Your task to perform on an android device: turn on bluetooth scan Image 0: 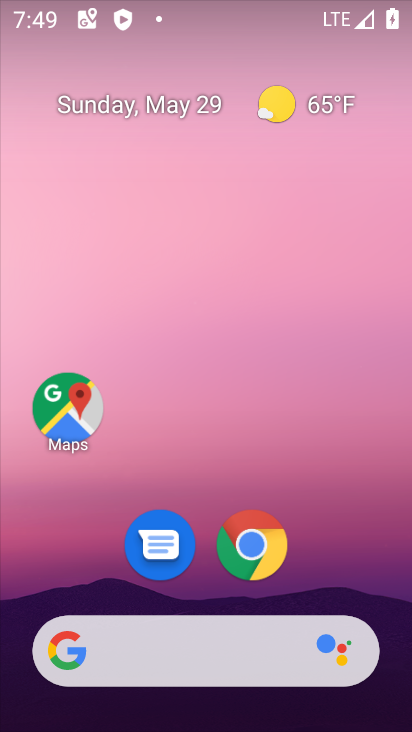
Step 0: drag from (208, 585) to (233, 228)
Your task to perform on an android device: turn on bluetooth scan Image 1: 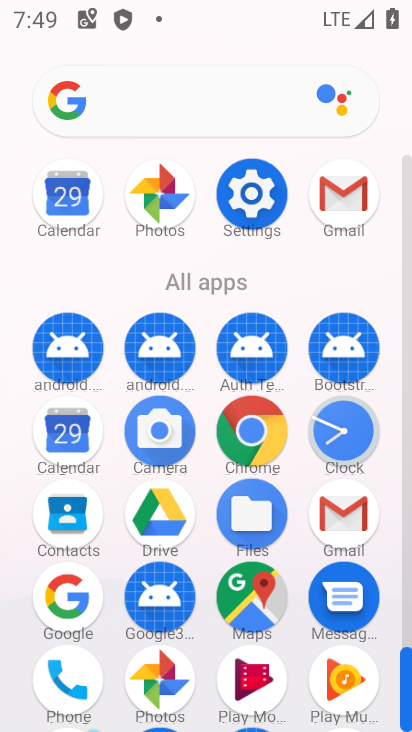
Step 1: click (252, 194)
Your task to perform on an android device: turn on bluetooth scan Image 2: 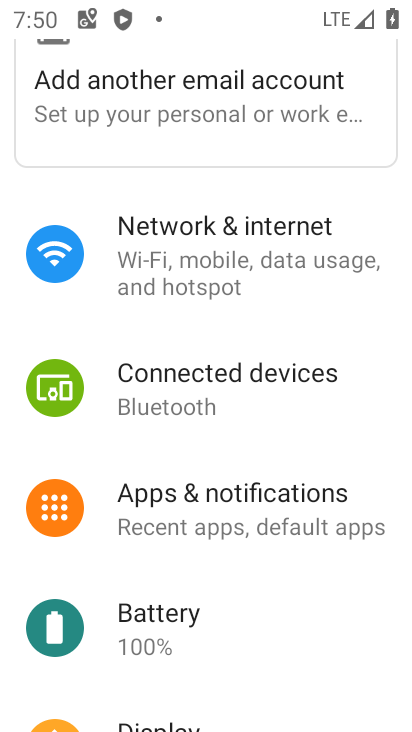
Step 2: drag from (185, 600) to (234, 214)
Your task to perform on an android device: turn on bluetooth scan Image 3: 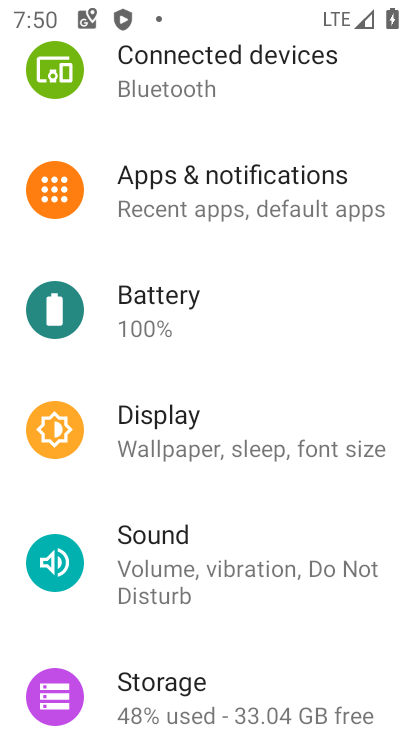
Step 3: drag from (249, 644) to (281, 276)
Your task to perform on an android device: turn on bluetooth scan Image 4: 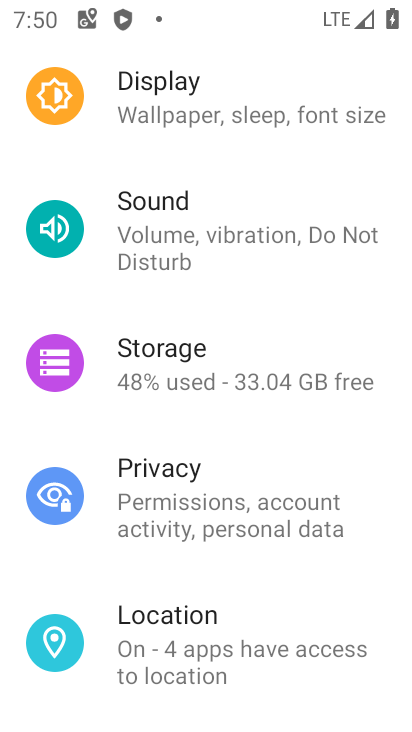
Step 4: drag from (269, 703) to (287, 335)
Your task to perform on an android device: turn on bluetooth scan Image 5: 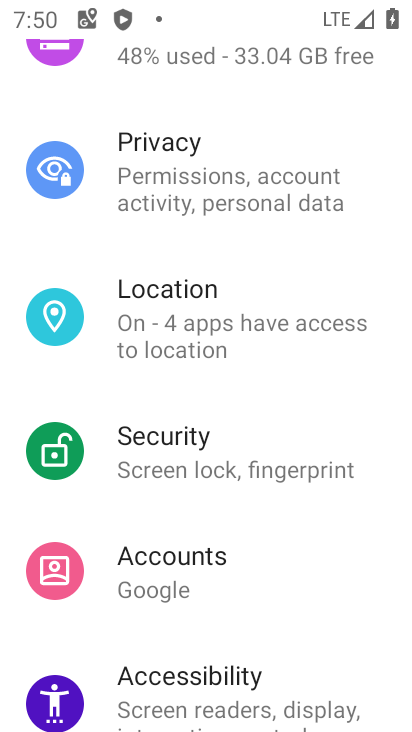
Step 5: drag from (251, 618) to (266, 238)
Your task to perform on an android device: turn on bluetooth scan Image 6: 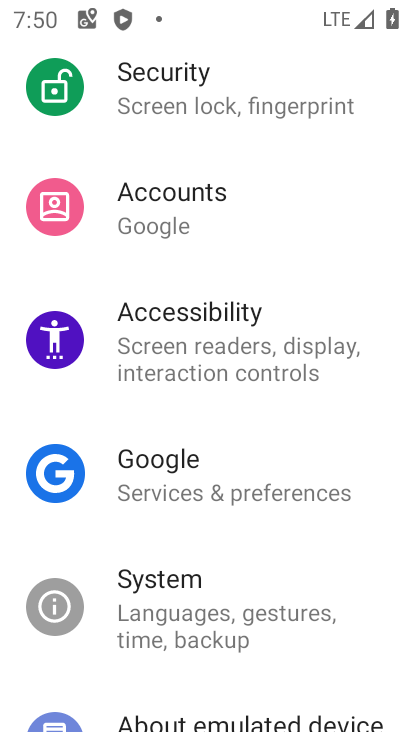
Step 6: drag from (302, 699) to (301, 352)
Your task to perform on an android device: turn on bluetooth scan Image 7: 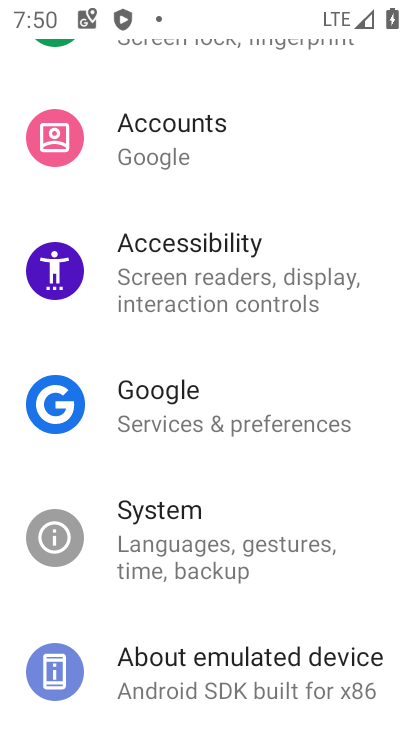
Step 7: drag from (285, 244) to (291, 517)
Your task to perform on an android device: turn on bluetooth scan Image 8: 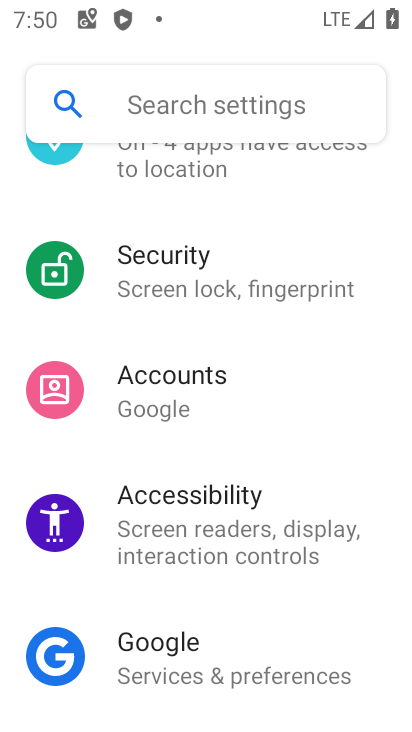
Step 8: drag from (226, 221) to (279, 633)
Your task to perform on an android device: turn on bluetooth scan Image 9: 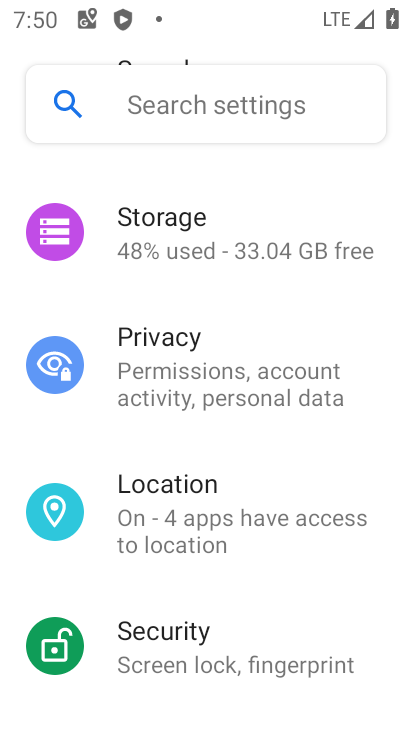
Step 9: click (212, 514)
Your task to perform on an android device: turn on bluetooth scan Image 10: 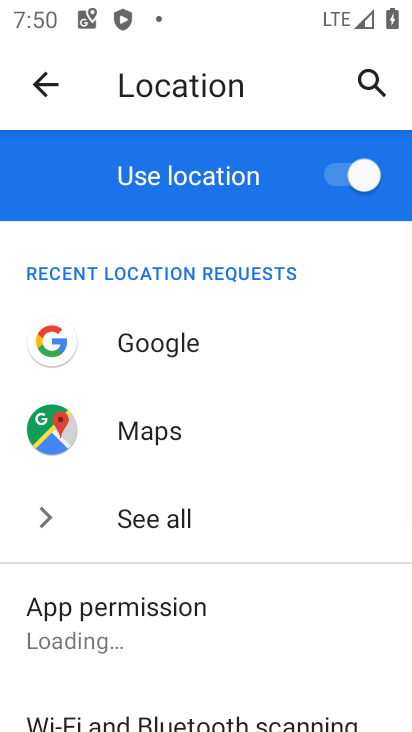
Step 10: drag from (192, 632) to (234, 282)
Your task to perform on an android device: turn on bluetooth scan Image 11: 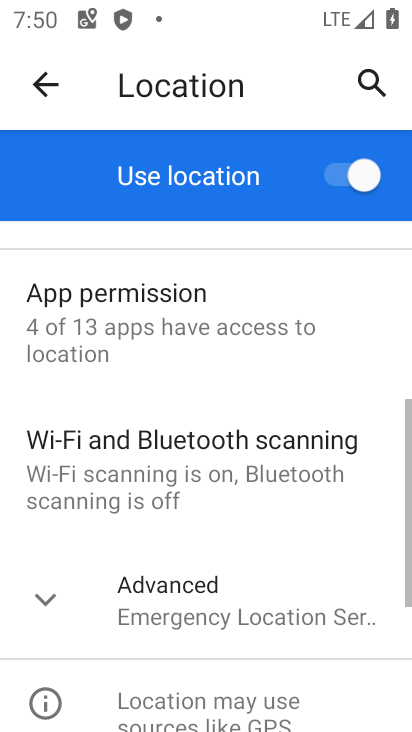
Step 11: click (163, 465)
Your task to perform on an android device: turn on bluetooth scan Image 12: 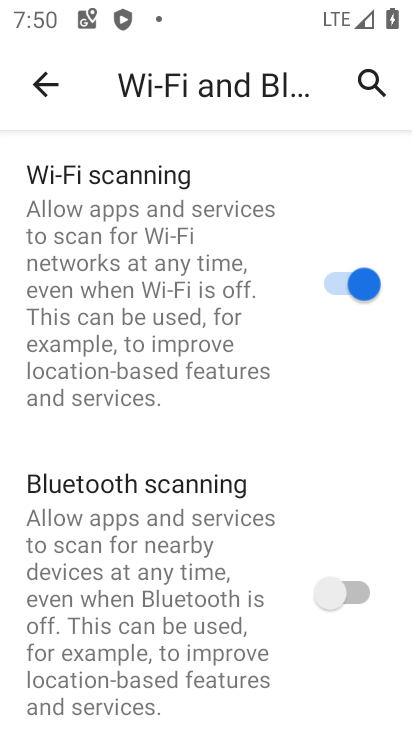
Step 12: click (344, 607)
Your task to perform on an android device: turn on bluetooth scan Image 13: 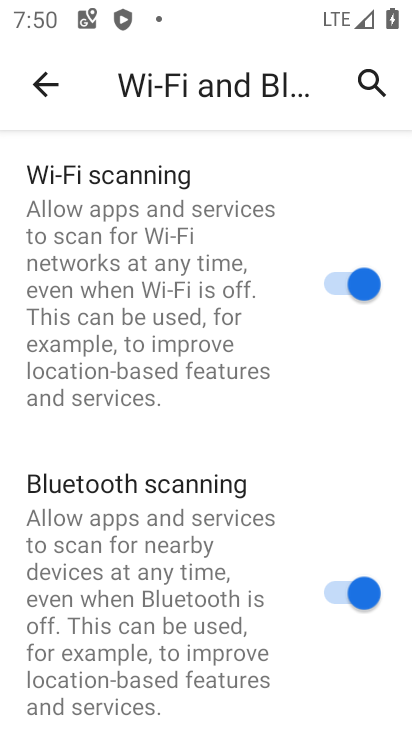
Step 13: task complete